Your task to perform on an android device: Check the news Image 0: 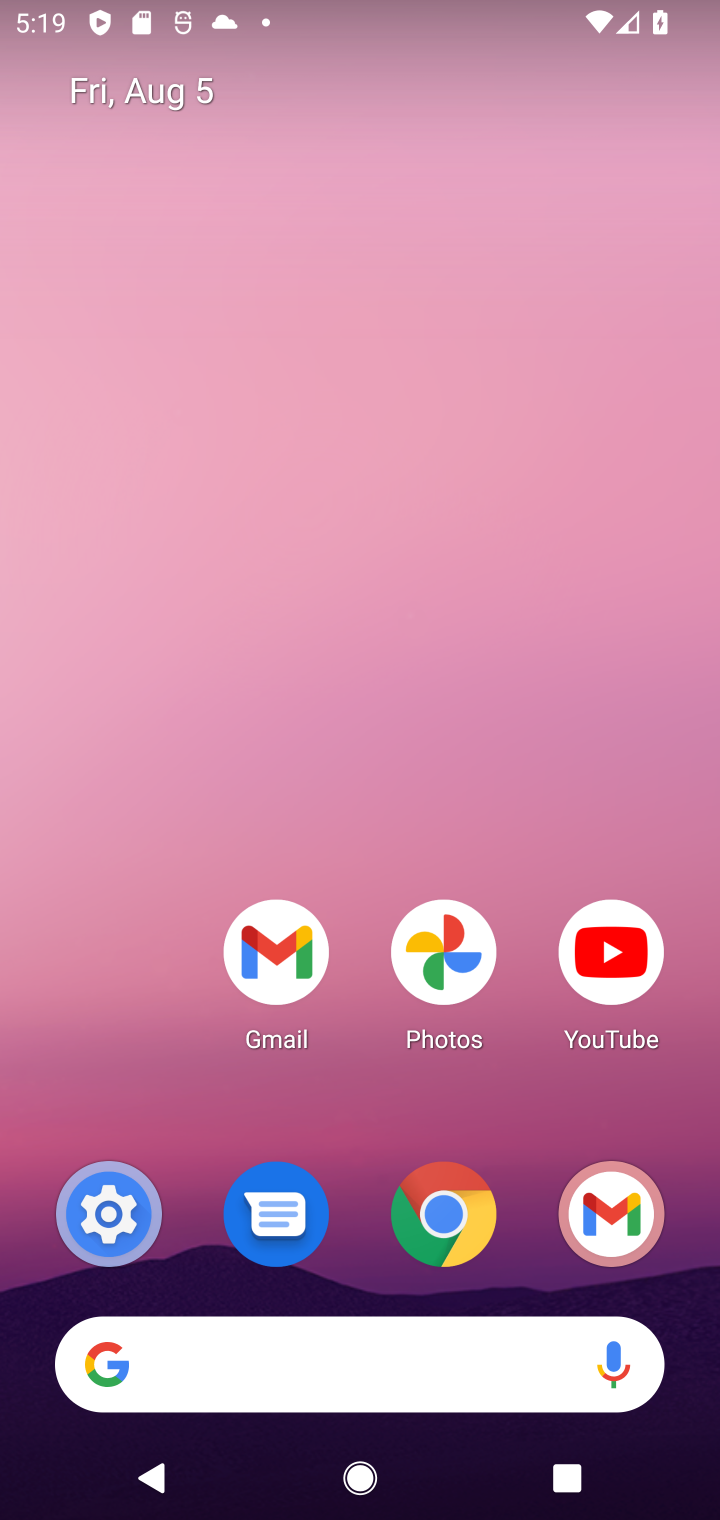
Step 0: click (453, 1351)
Your task to perform on an android device: Check the news Image 1: 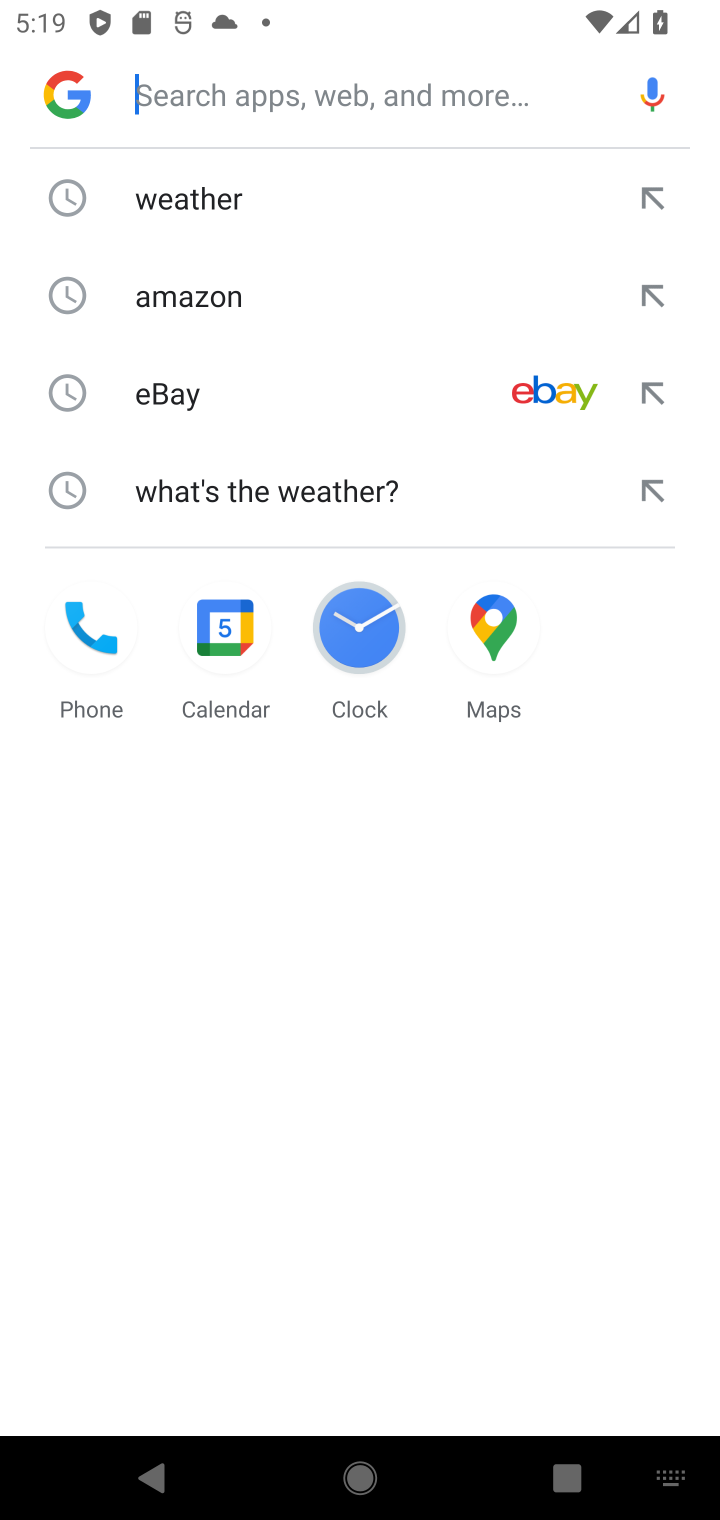
Step 1: type "news"
Your task to perform on an android device: Check the news Image 2: 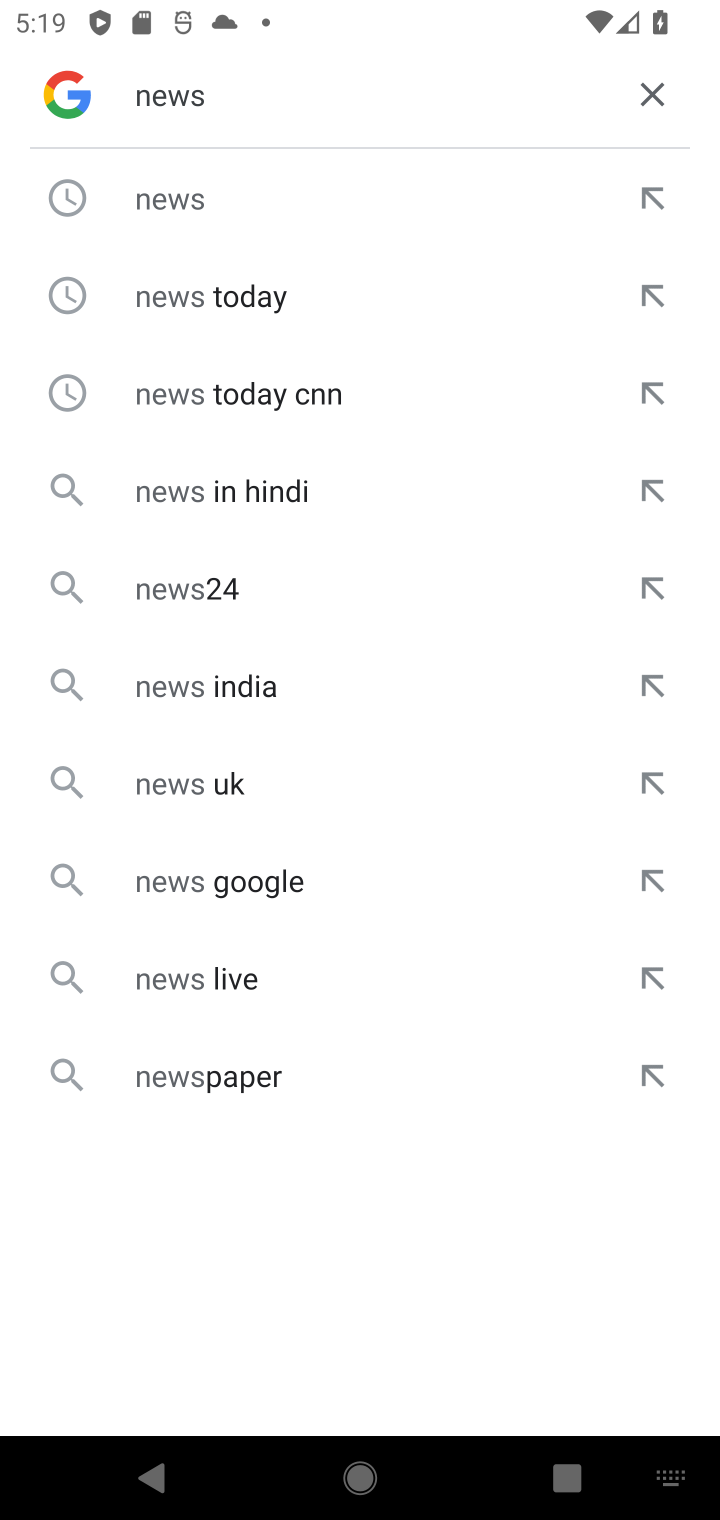
Step 2: click (186, 191)
Your task to perform on an android device: Check the news Image 3: 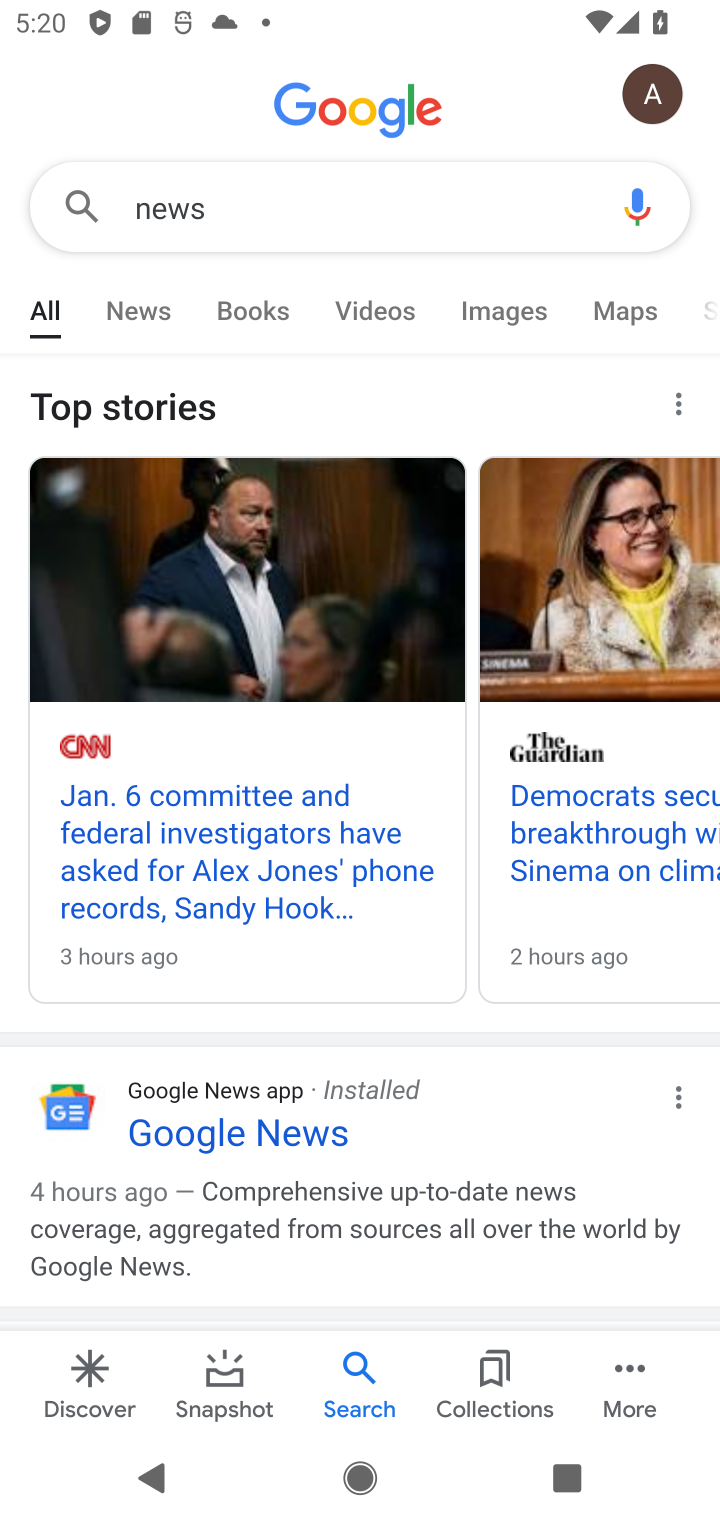
Step 3: task complete